Your task to perform on an android device: toggle data saver in the chrome app Image 0: 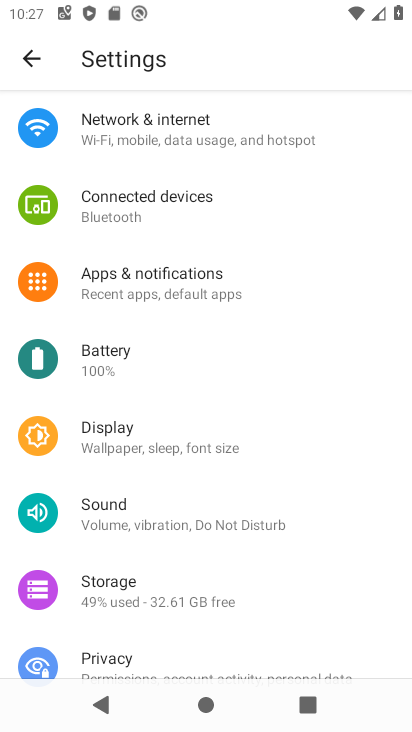
Step 0: press home button
Your task to perform on an android device: toggle data saver in the chrome app Image 1: 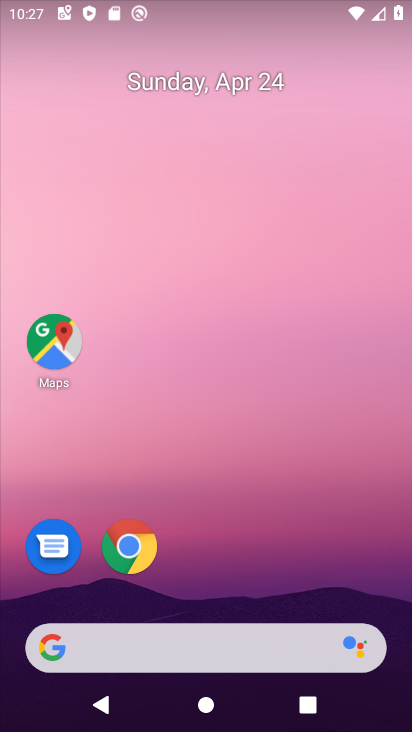
Step 1: click (128, 548)
Your task to perform on an android device: toggle data saver in the chrome app Image 2: 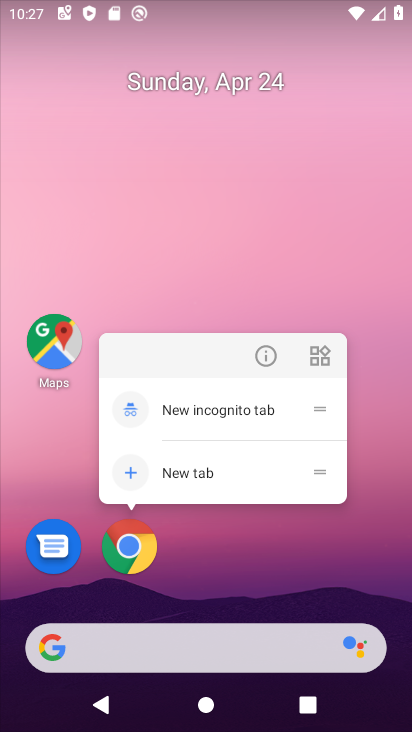
Step 2: click (136, 557)
Your task to perform on an android device: toggle data saver in the chrome app Image 3: 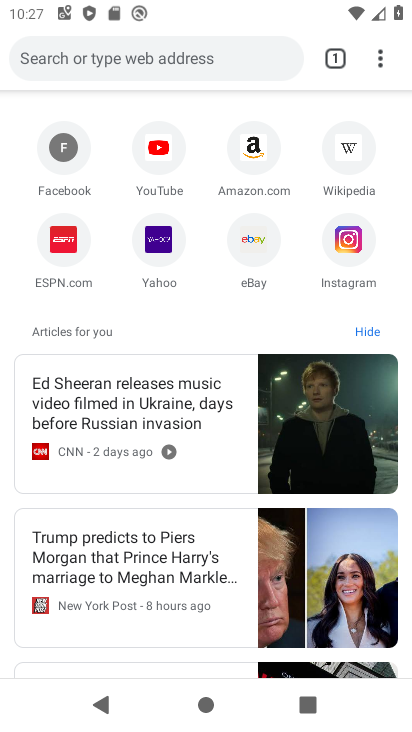
Step 3: drag from (382, 63) to (161, 489)
Your task to perform on an android device: toggle data saver in the chrome app Image 4: 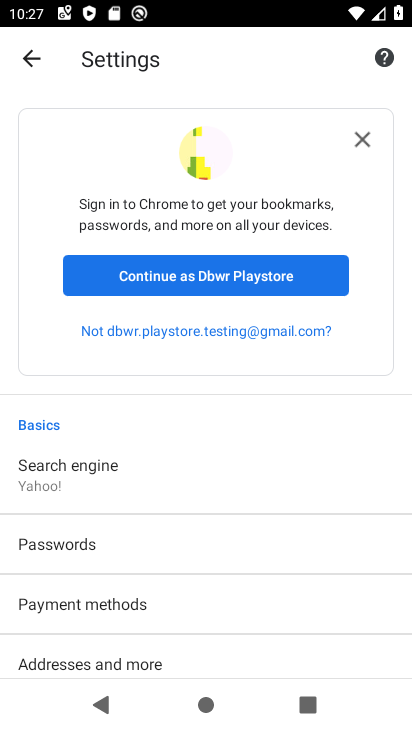
Step 4: drag from (234, 609) to (242, 69)
Your task to perform on an android device: toggle data saver in the chrome app Image 5: 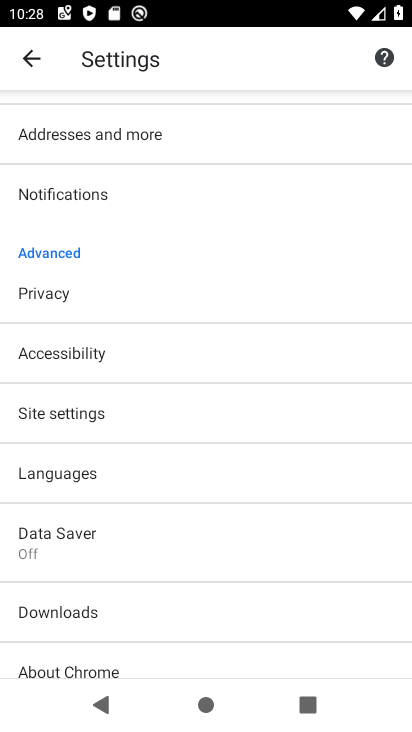
Step 5: click (38, 538)
Your task to perform on an android device: toggle data saver in the chrome app Image 6: 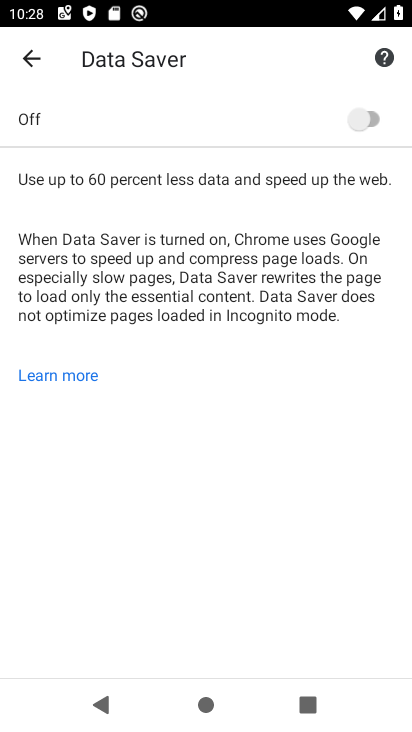
Step 6: click (357, 118)
Your task to perform on an android device: toggle data saver in the chrome app Image 7: 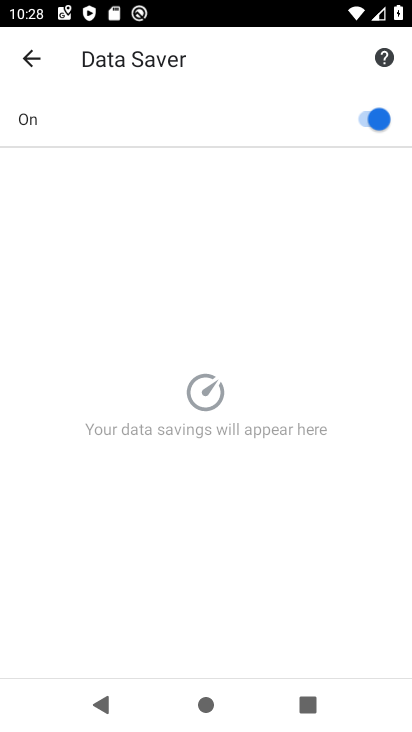
Step 7: task complete